Your task to perform on an android device: Open calendar and show me the first week of next month Image 0: 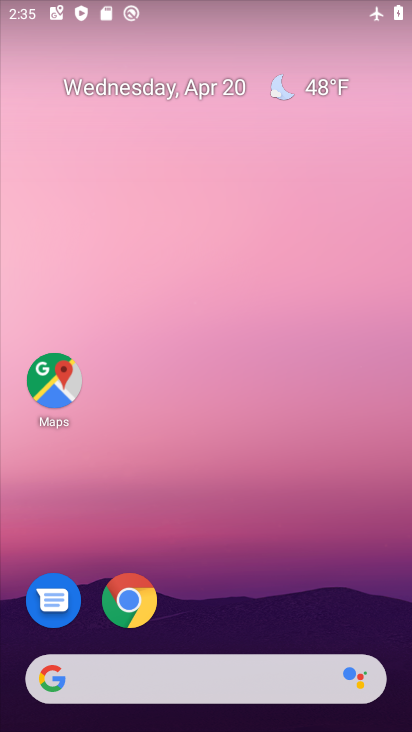
Step 0: drag from (271, 450) to (286, 128)
Your task to perform on an android device: Open calendar and show me the first week of next month Image 1: 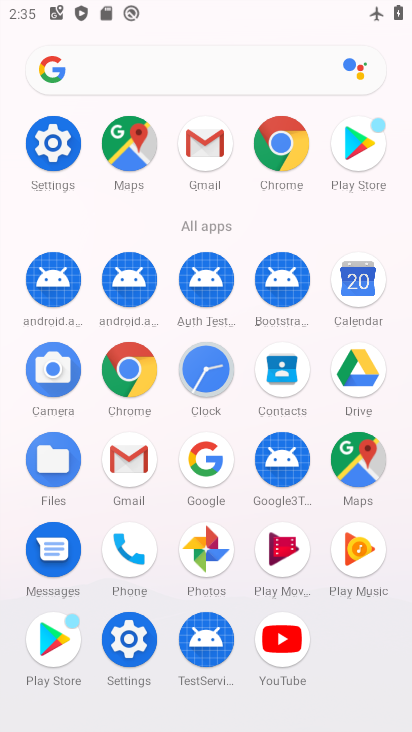
Step 1: click (360, 292)
Your task to perform on an android device: Open calendar and show me the first week of next month Image 2: 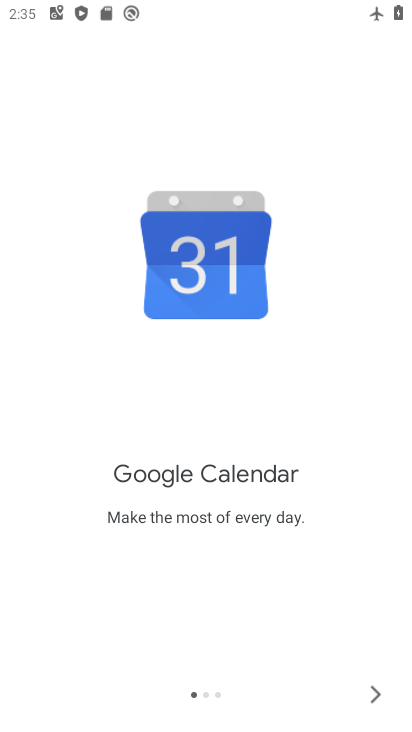
Step 2: click (390, 698)
Your task to perform on an android device: Open calendar and show me the first week of next month Image 3: 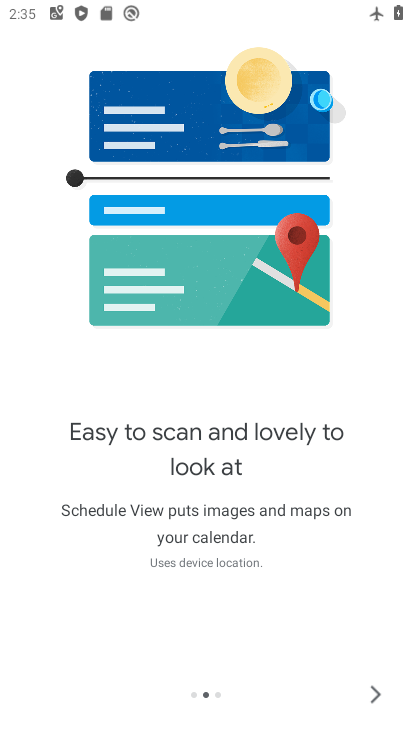
Step 3: click (390, 697)
Your task to perform on an android device: Open calendar and show me the first week of next month Image 4: 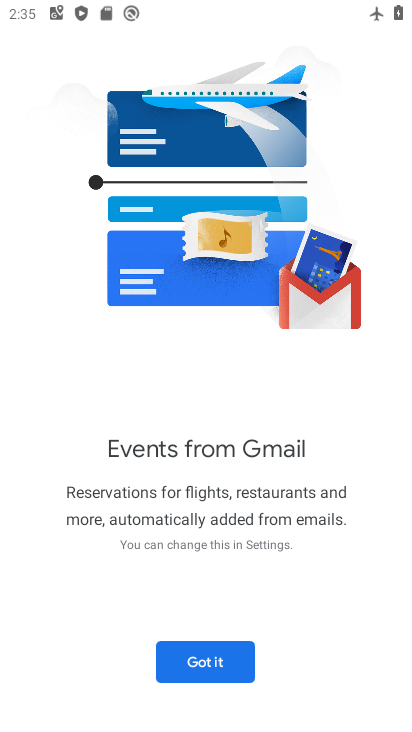
Step 4: click (225, 659)
Your task to perform on an android device: Open calendar and show me the first week of next month Image 5: 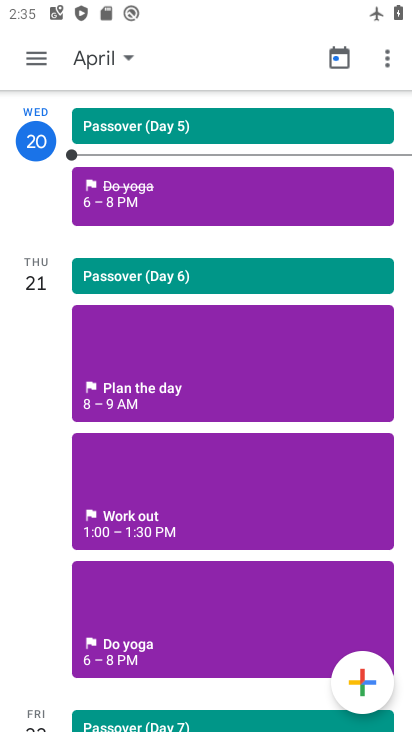
Step 5: click (80, 58)
Your task to perform on an android device: Open calendar and show me the first week of next month Image 6: 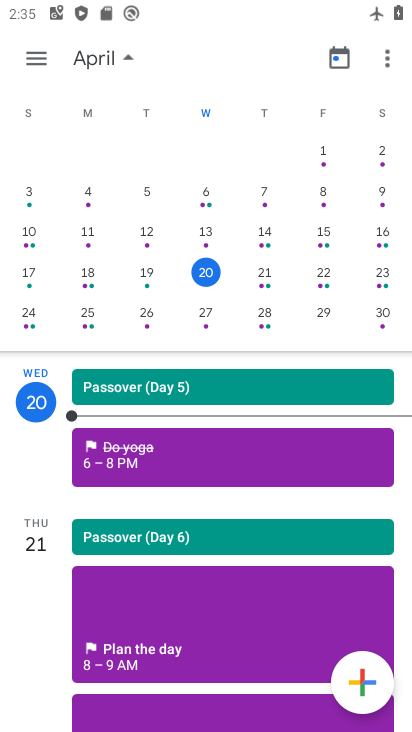
Step 6: drag from (304, 226) to (7, 245)
Your task to perform on an android device: Open calendar and show me the first week of next month Image 7: 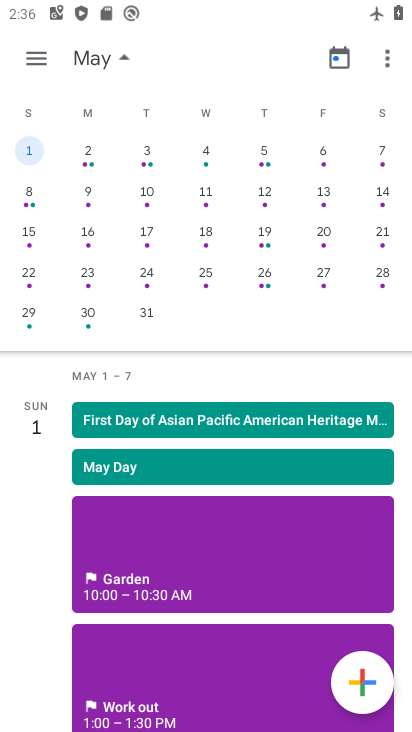
Step 7: click (328, 199)
Your task to perform on an android device: Open calendar and show me the first week of next month Image 8: 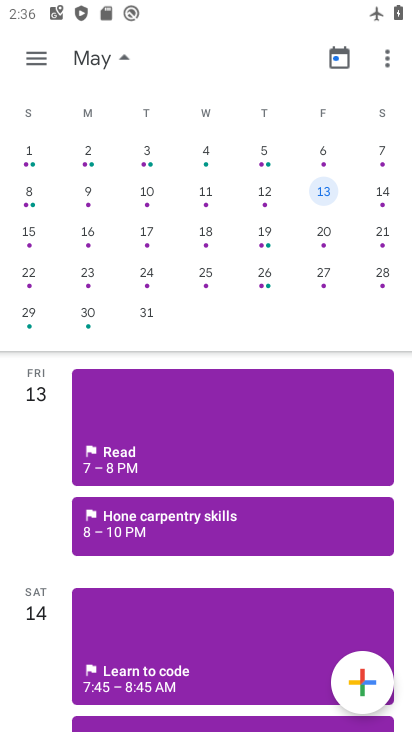
Step 8: click (329, 150)
Your task to perform on an android device: Open calendar and show me the first week of next month Image 9: 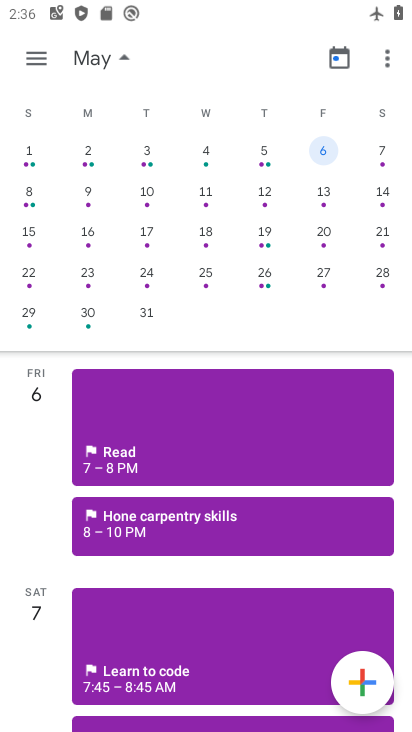
Step 9: task complete